Your task to perform on an android device: Open Amazon Image 0: 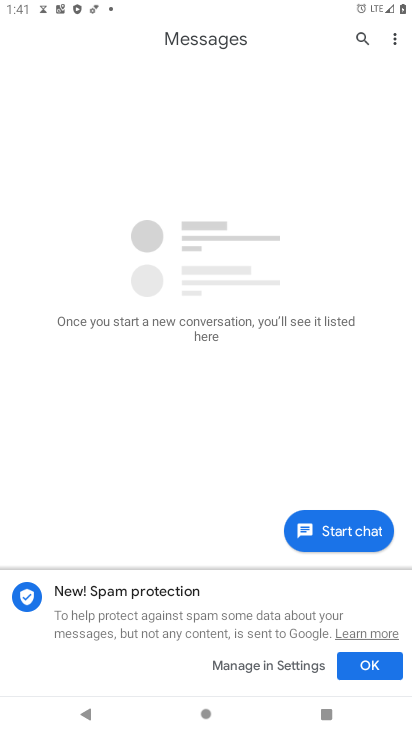
Step 0: press home button
Your task to perform on an android device: Open Amazon Image 1: 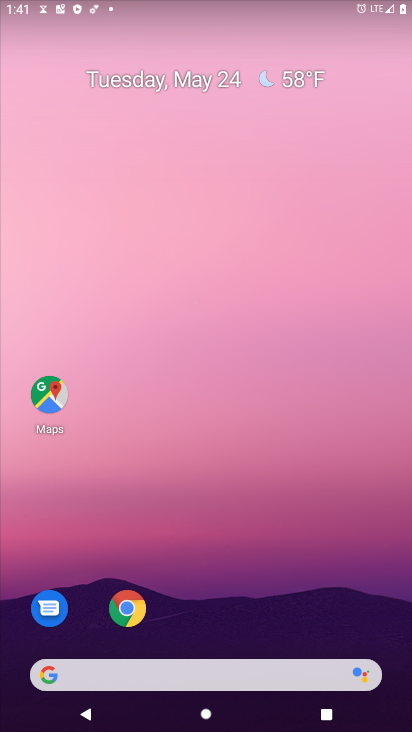
Step 1: drag from (229, 686) to (105, 147)
Your task to perform on an android device: Open Amazon Image 2: 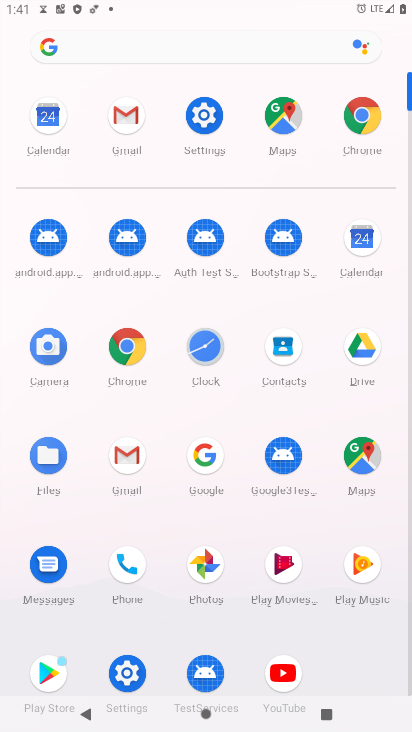
Step 2: click (356, 128)
Your task to perform on an android device: Open Amazon Image 3: 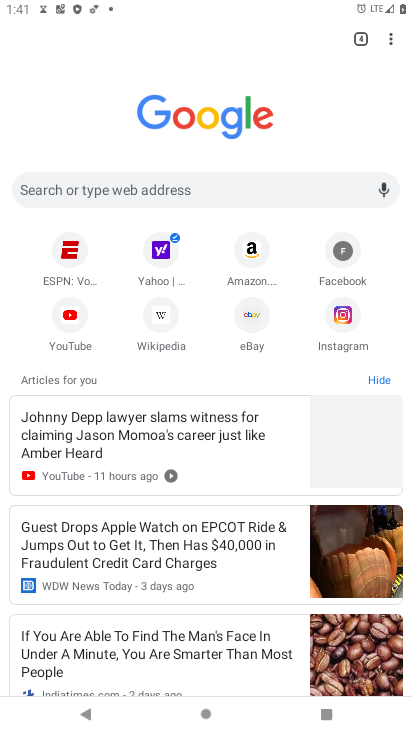
Step 3: click (261, 262)
Your task to perform on an android device: Open Amazon Image 4: 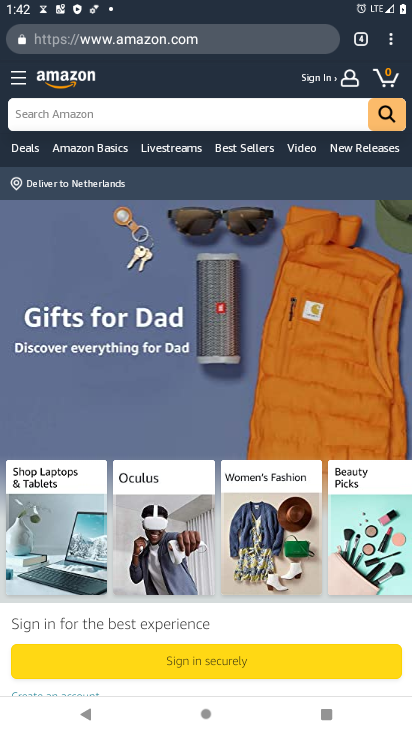
Step 4: task complete